Your task to perform on an android device: Show the shopping cart on target.com. Add "jbl charge 4" to the cart on target.com Image 0: 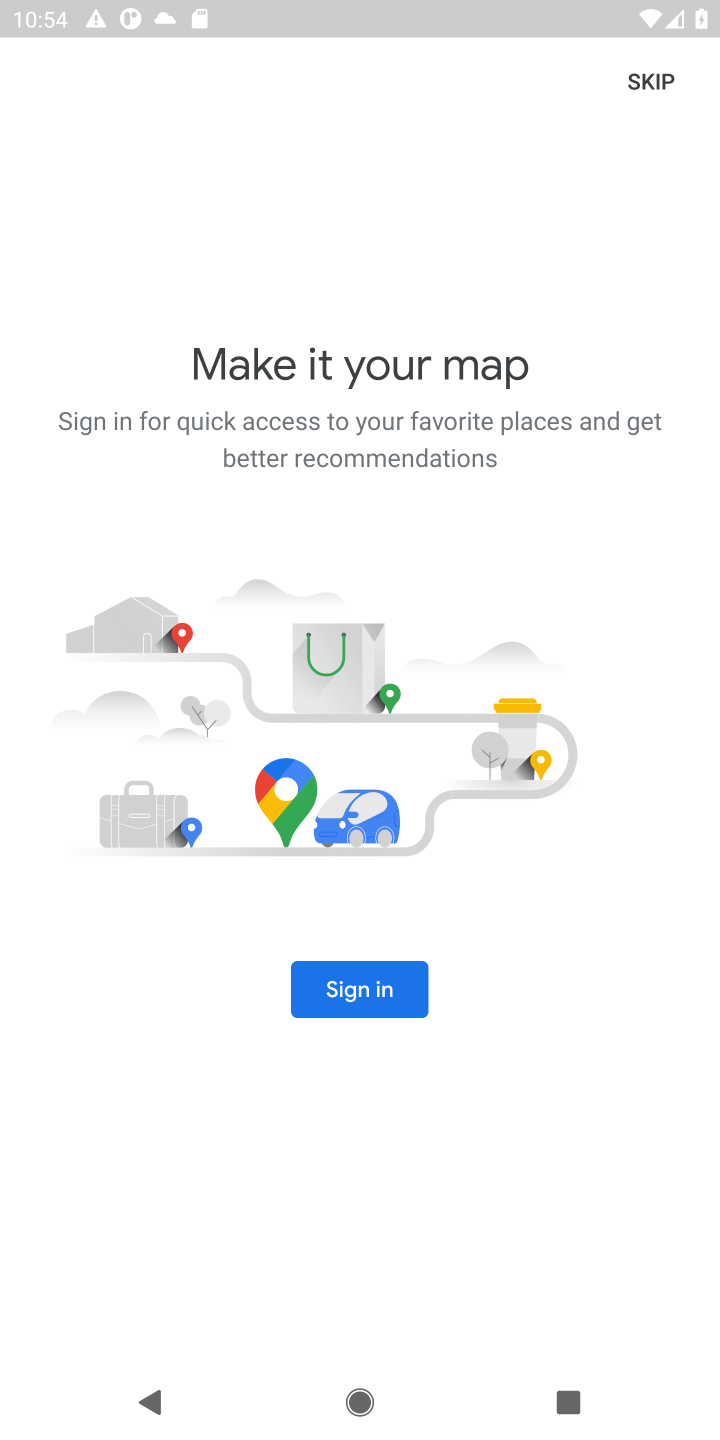
Step 0: press home button
Your task to perform on an android device: Show the shopping cart on target.com. Add "jbl charge 4" to the cart on target.com Image 1: 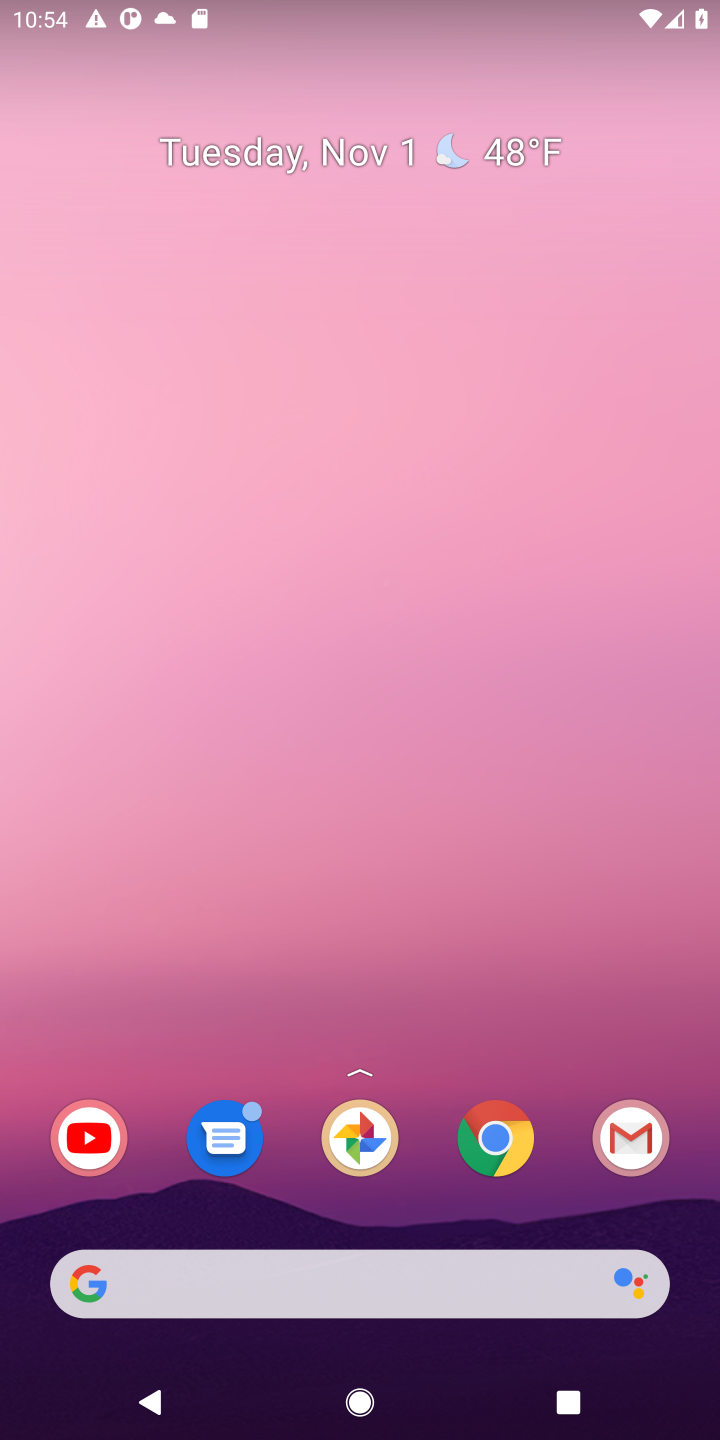
Step 1: drag from (437, 1078) to (430, 79)
Your task to perform on an android device: Show the shopping cart on target.com. Add "jbl charge 4" to the cart on target.com Image 2: 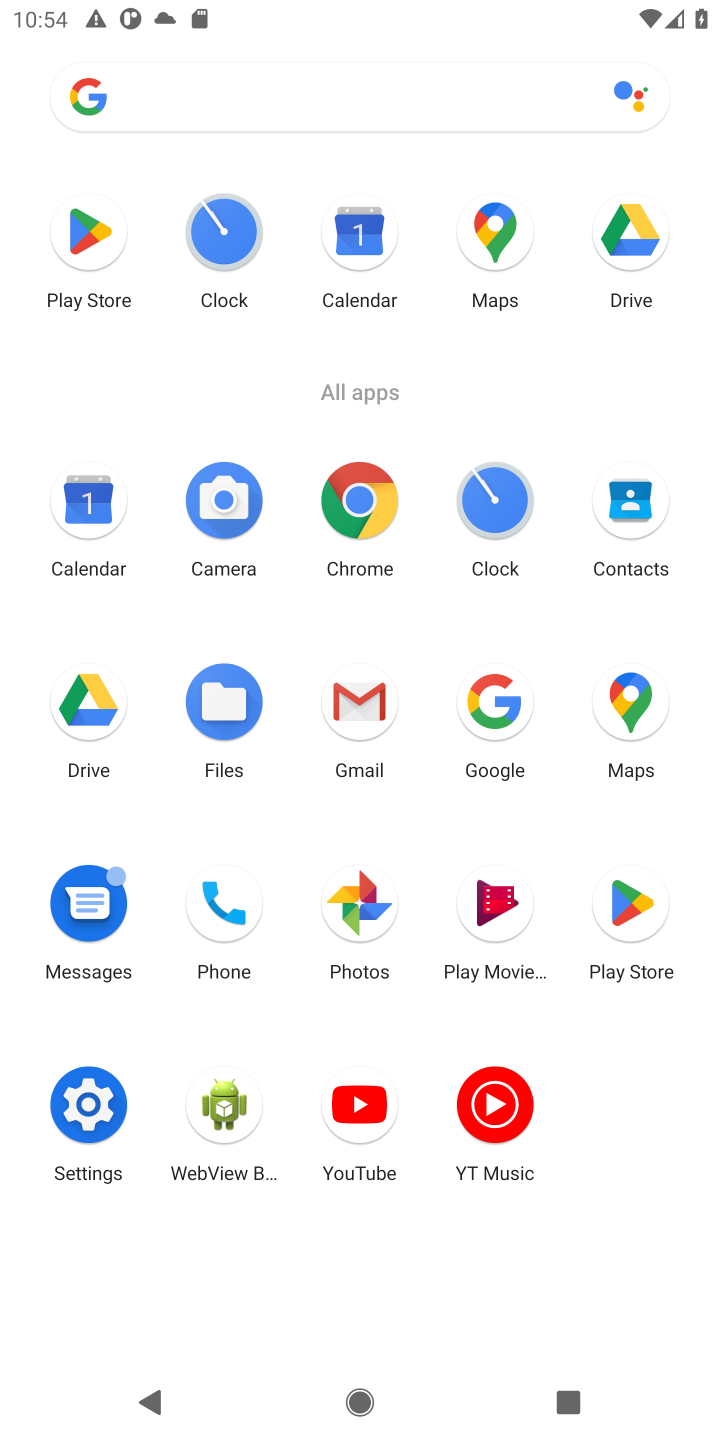
Step 2: click (359, 487)
Your task to perform on an android device: Show the shopping cart on target.com. Add "jbl charge 4" to the cart on target.com Image 3: 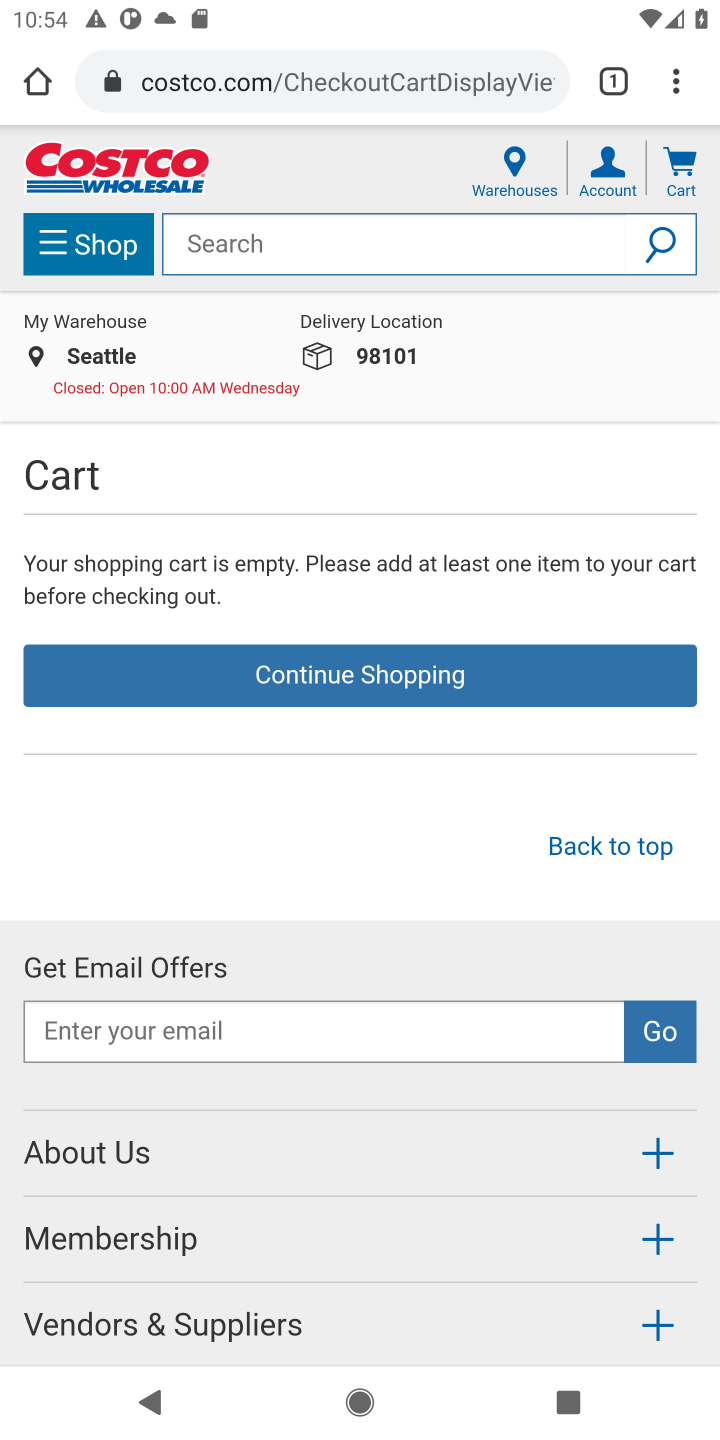
Step 3: click (193, 76)
Your task to perform on an android device: Show the shopping cart on target.com. Add "jbl charge 4" to the cart on target.com Image 4: 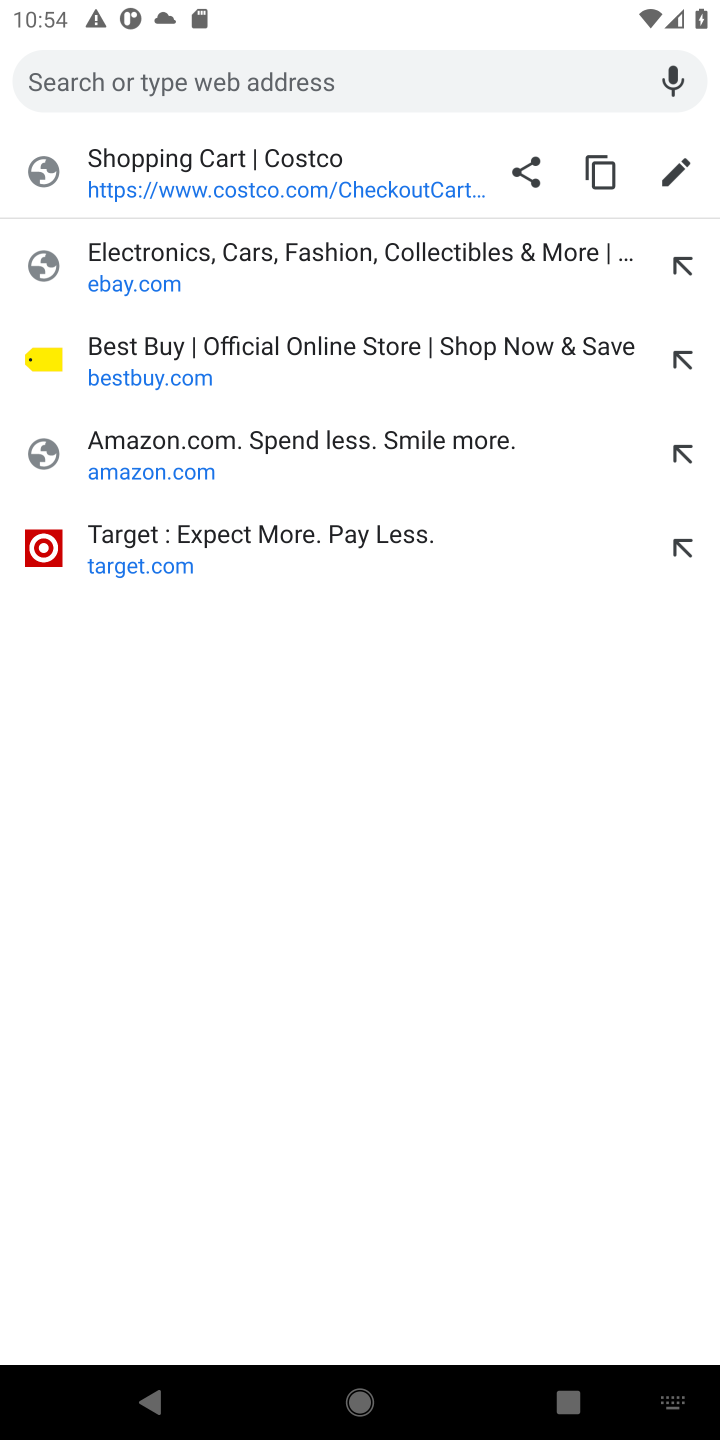
Step 4: type "target"
Your task to perform on an android device: Show the shopping cart on target.com. Add "jbl charge 4" to the cart on target.com Image 5: 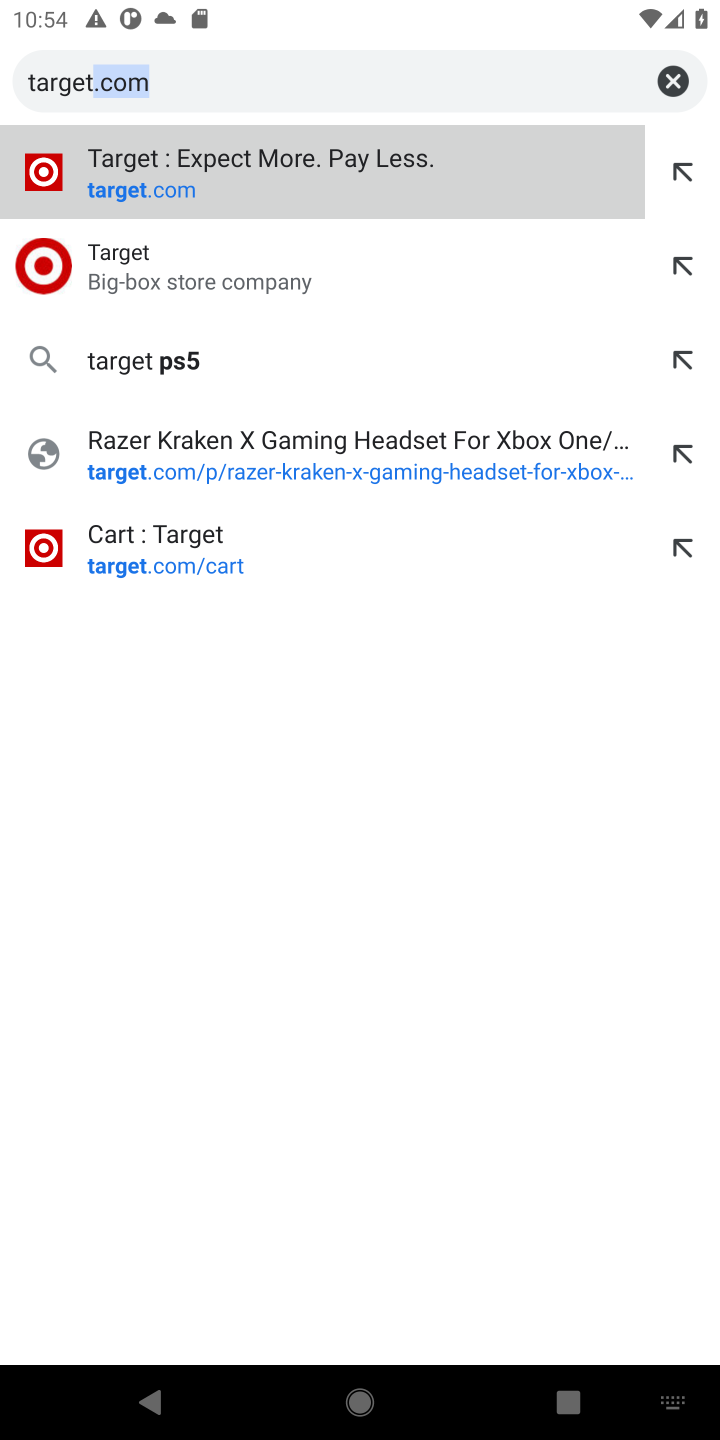
Step 5: click (206, 171)
Your task to perform on an android device: Show the shopping cart on target.com. Add "jbl charge 4" to the cart on target.com Image 6: 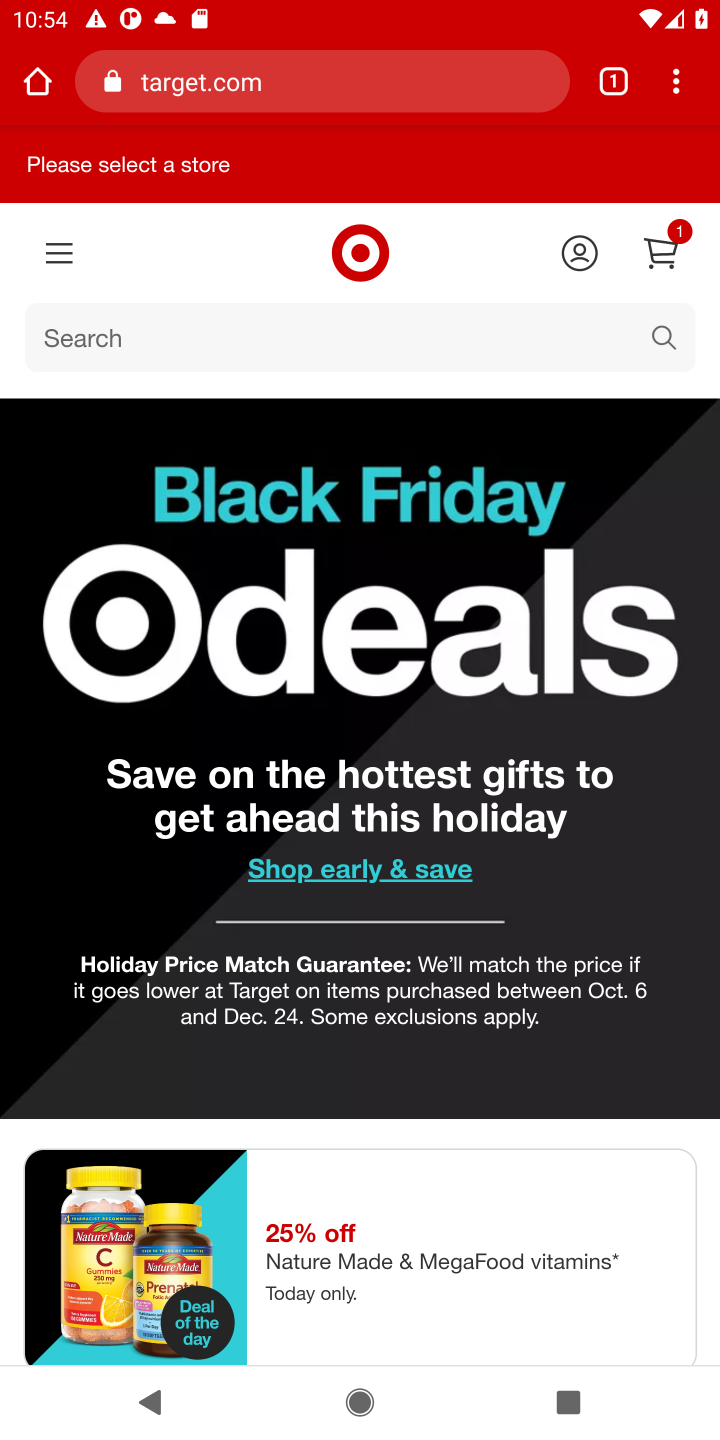
Step 6: click (157, 329)
Your task to perform on an android device: Show the shopping cart on target.com. Add "jbl charge 4" to the cart on target.com Image 7: 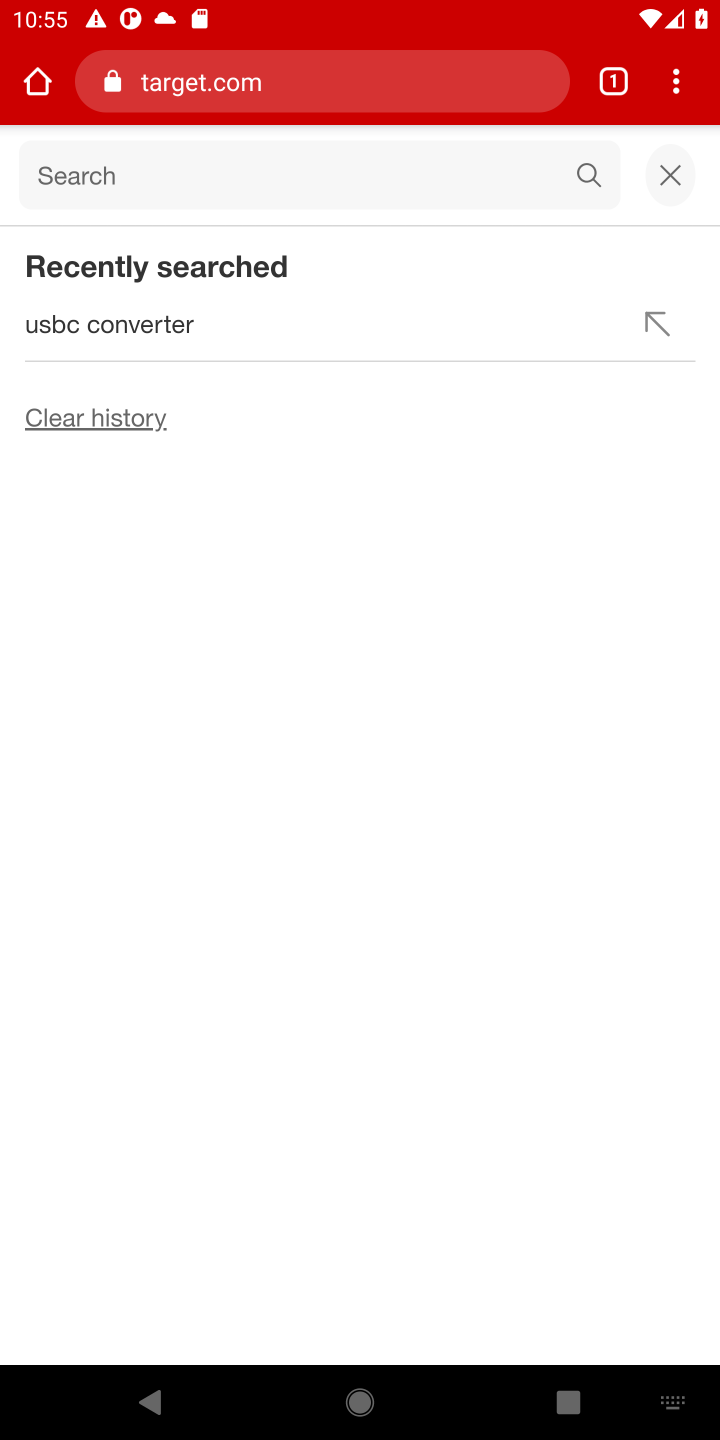
Step 7: type "jbl charge 4"
Your task to perform on an android device: Show the shopping cart on target.com. Add "jbl charge 4" to the cart on target.com Image 8: 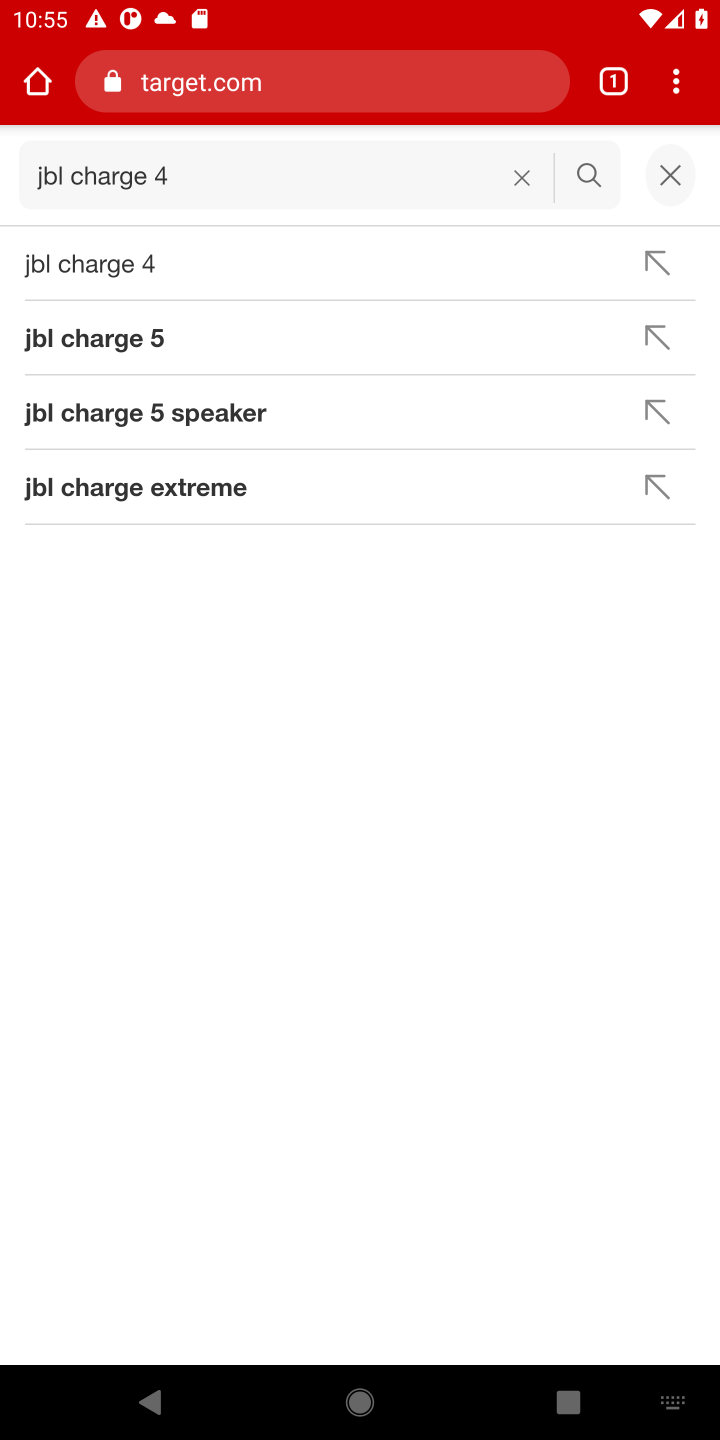
Step 8: click (159, 336)
Your task to perform on an android device: Show the shopping cart on target.com. Add "jbl charge 4" to the cart on target.com Image 9: 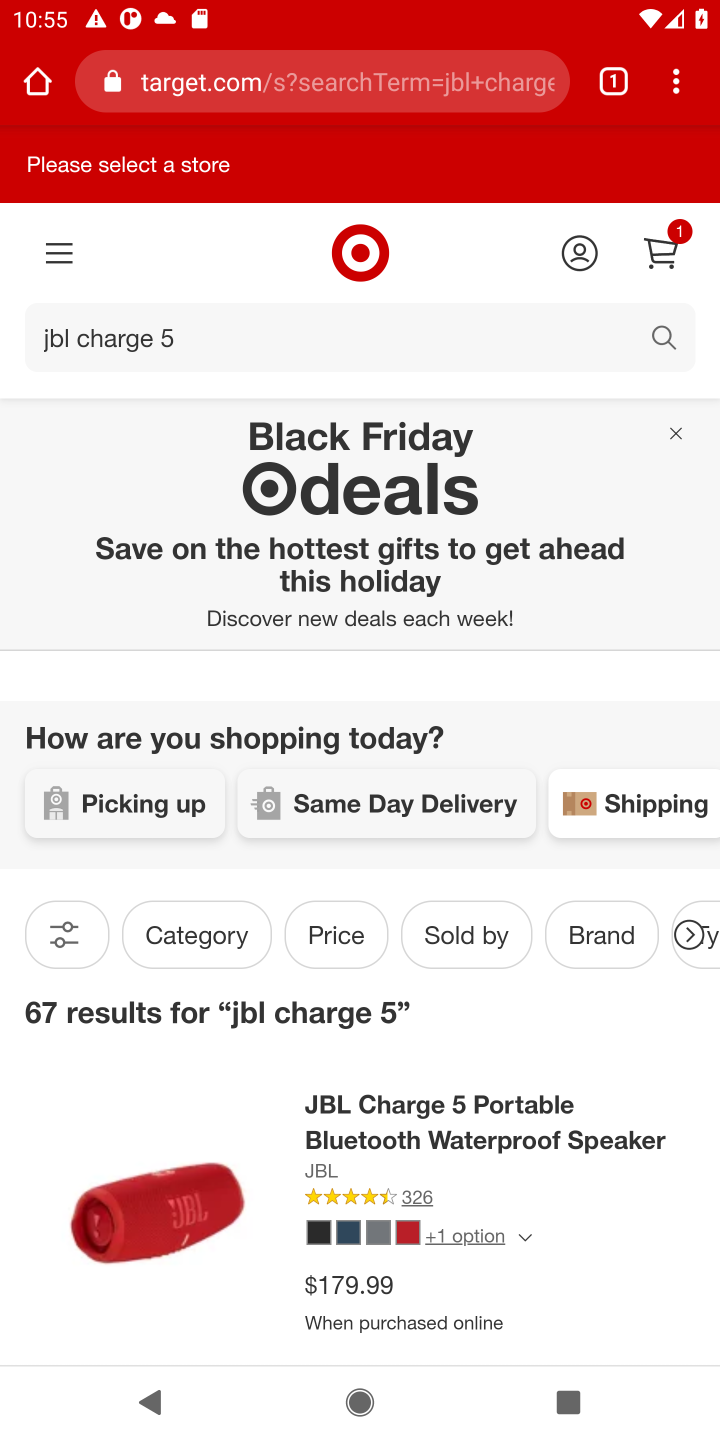
Step 9: click (654, 339)
Your task to perform on an android device: Show the shopping cart on target.com. Add "jbl charge 4" to the cart on target.com Image 10: 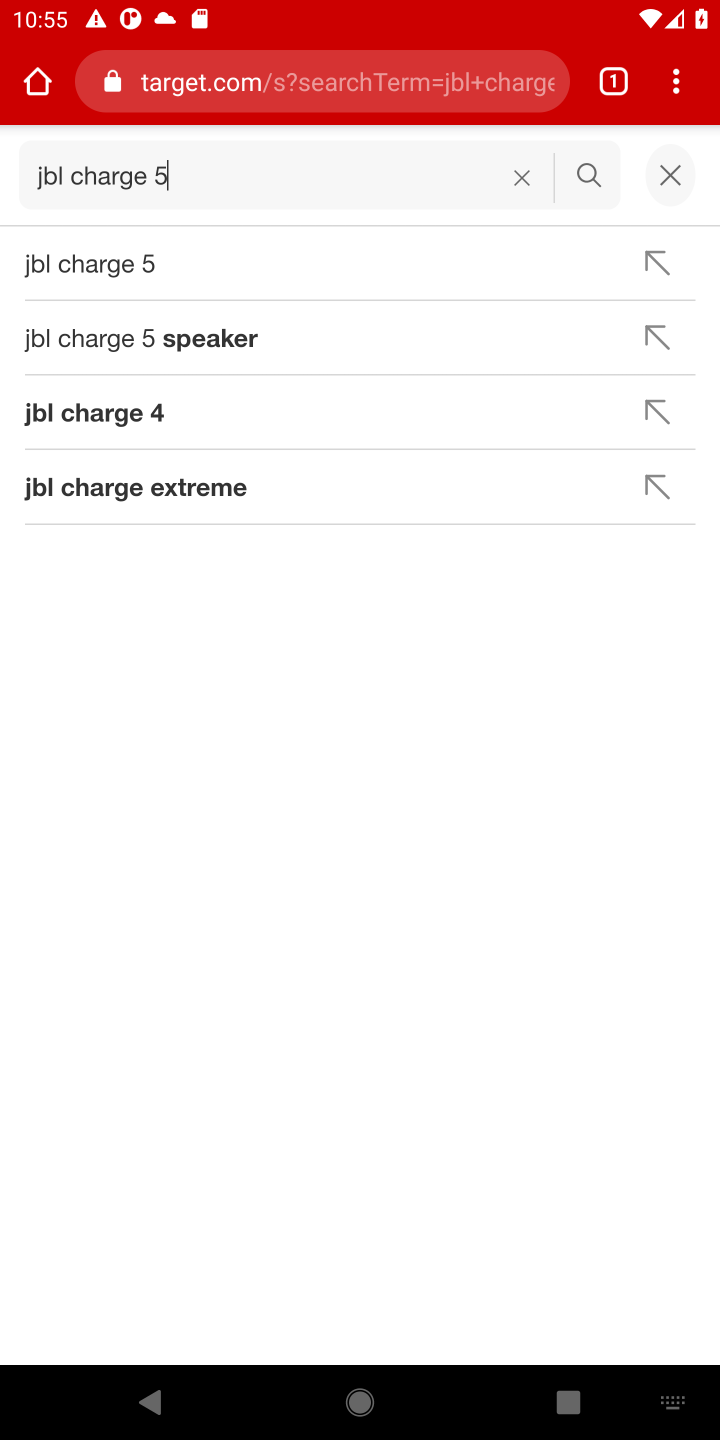
Step 10: click (523, 176)
Your task to perform on an android device: Show the shopping cart on target.com. Add "jbl charge 4" to the cart on target.com Image 11: 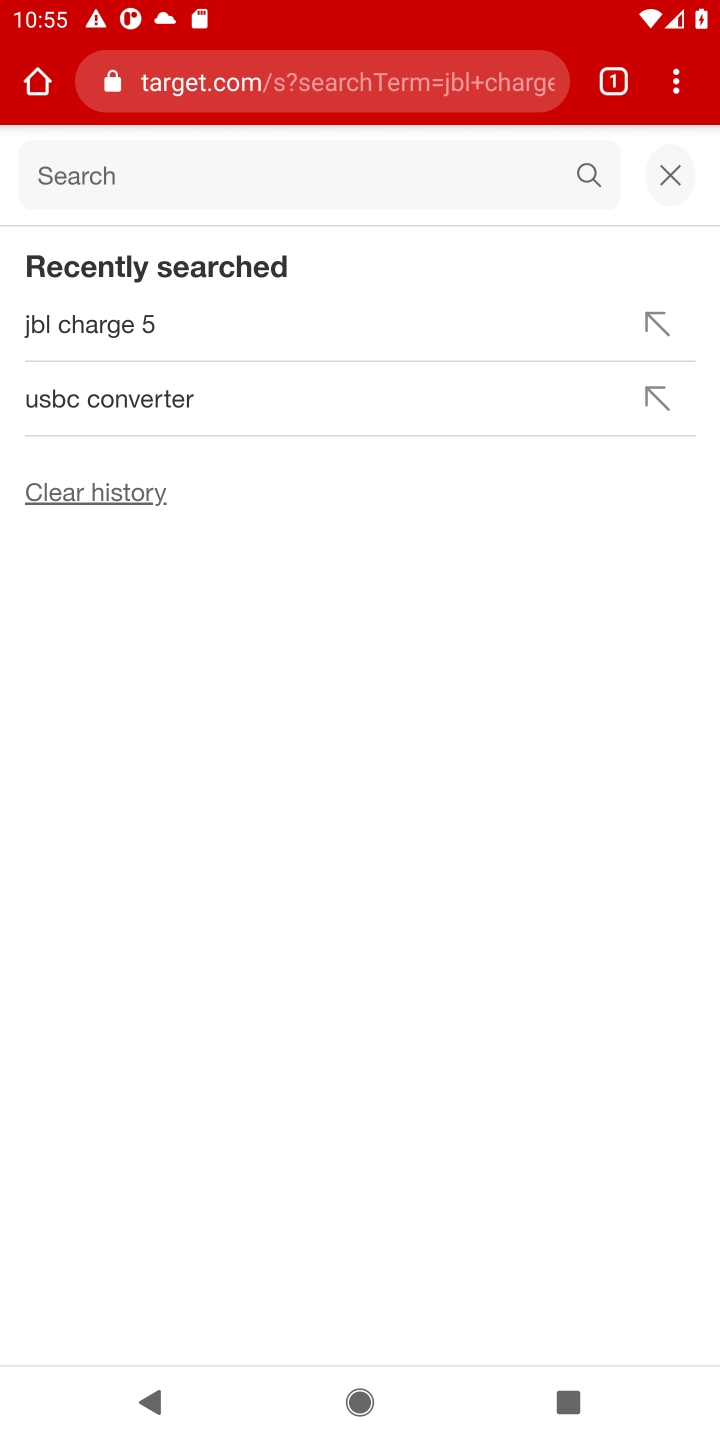
Step 11: type "jbl charge 4"
Your task to perform on an android device: Show the shopping cart on target.com. Add "jbl charge 4" to the cart on target.com Image 12: 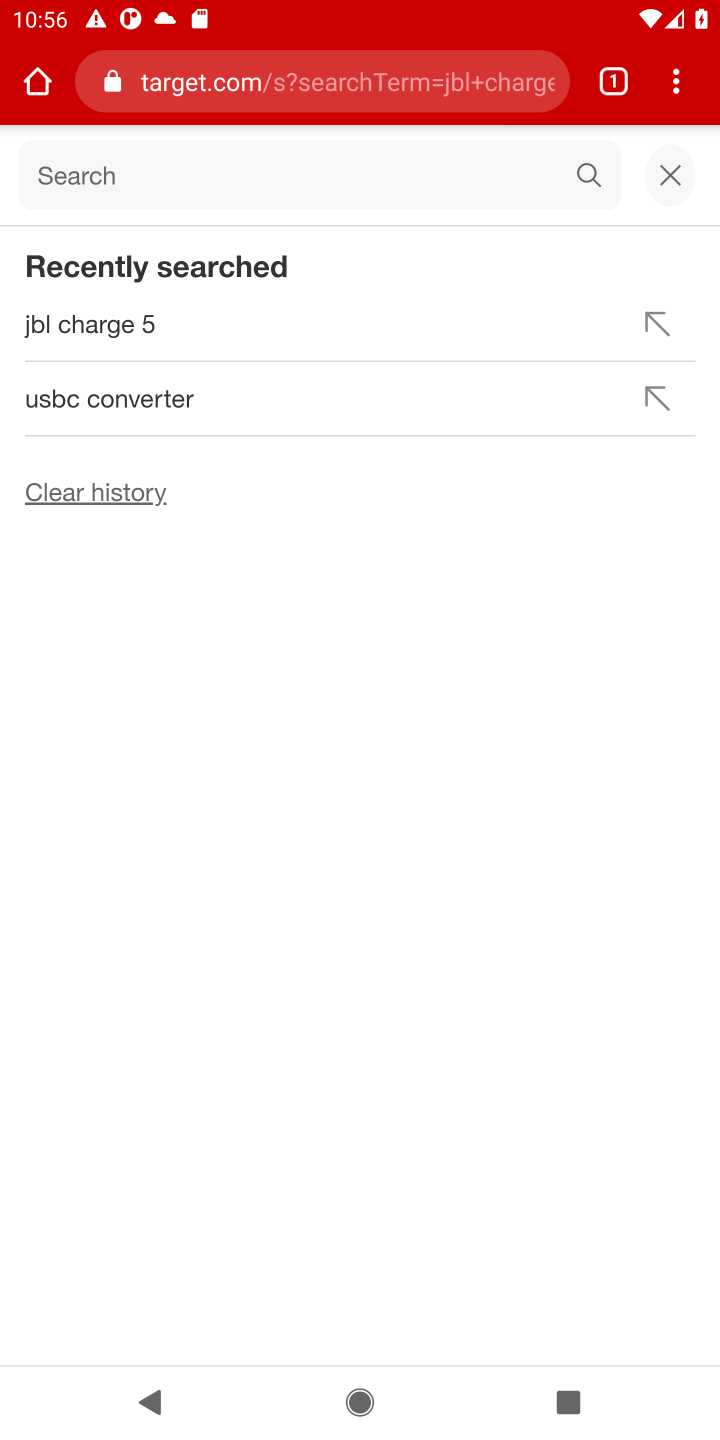
Step 12: click (95, 178)
Your task to perform on an android device: Show the shopping cart on target.com. Add "jbl charge 4" to the cart on target.com Image 13: 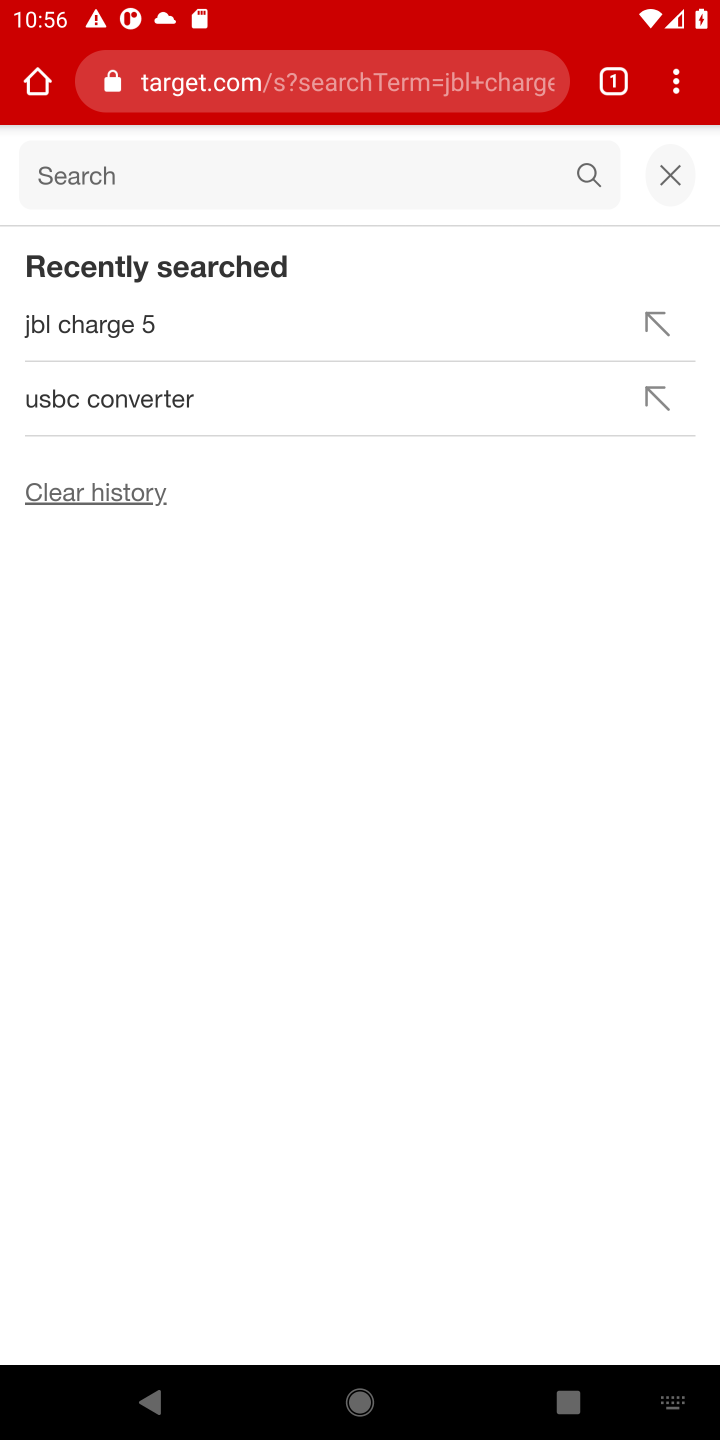
Step 13: type "jbl charge 4"
Your task to perform on an android device: Show the shopping cart on target.com. Add "jbl charge 4" to the cart on target.com Image 14: 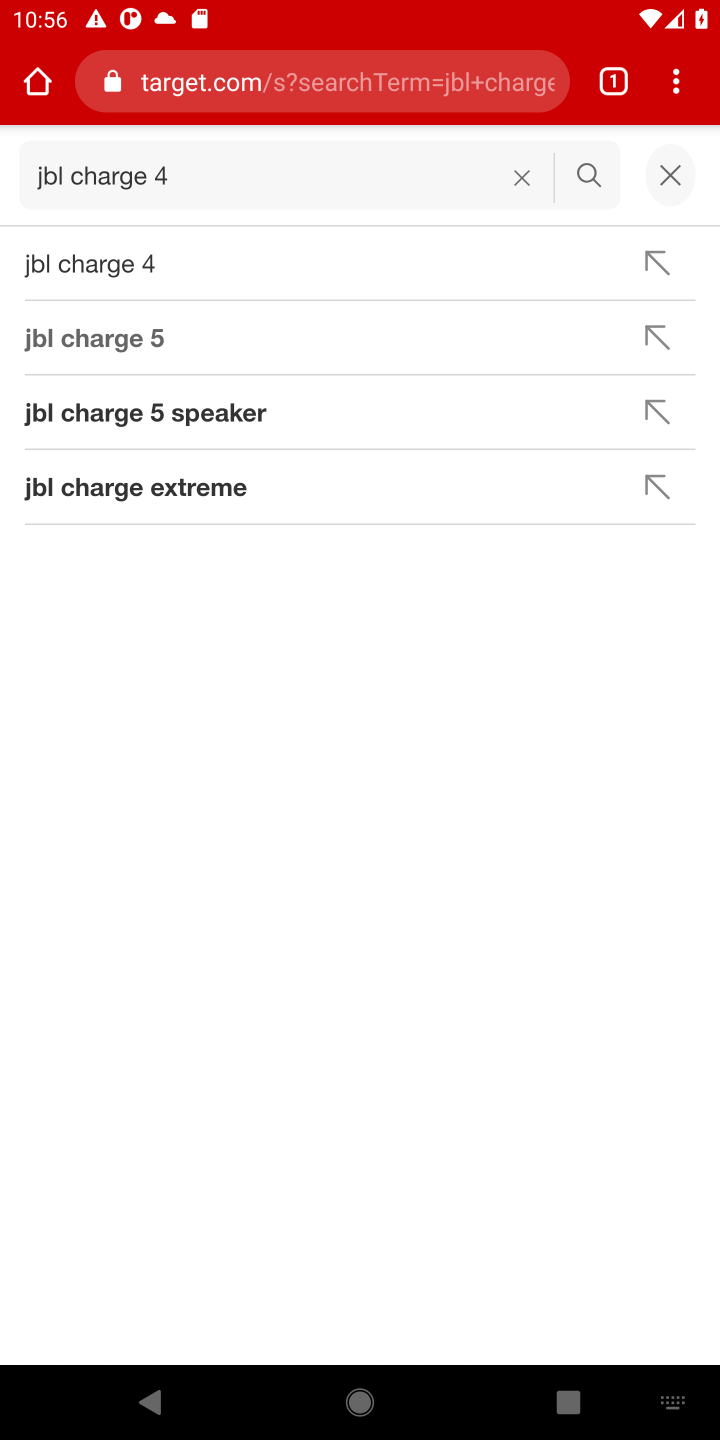
Step 14: click (125, 289)
Your task to perform on an android device: Show the shopping cart on target.com. Add "jbl charge 4" to the cart on target.com Image 15: 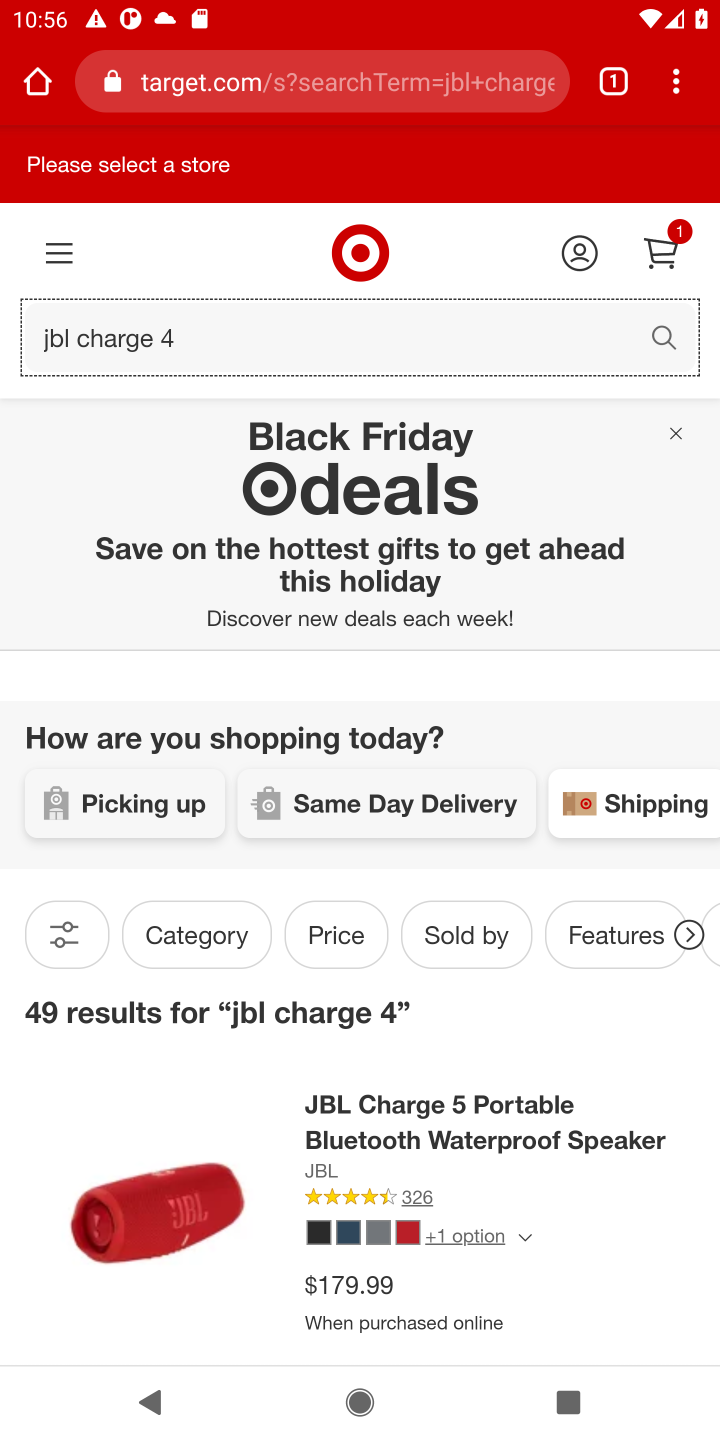
Step 15: drag from (361, 1224) to (339, 297)
Your task to perform on an android device: Show the shopping cart on target.com. Add "jbl charge 4" to the cart on target.com Image 16: 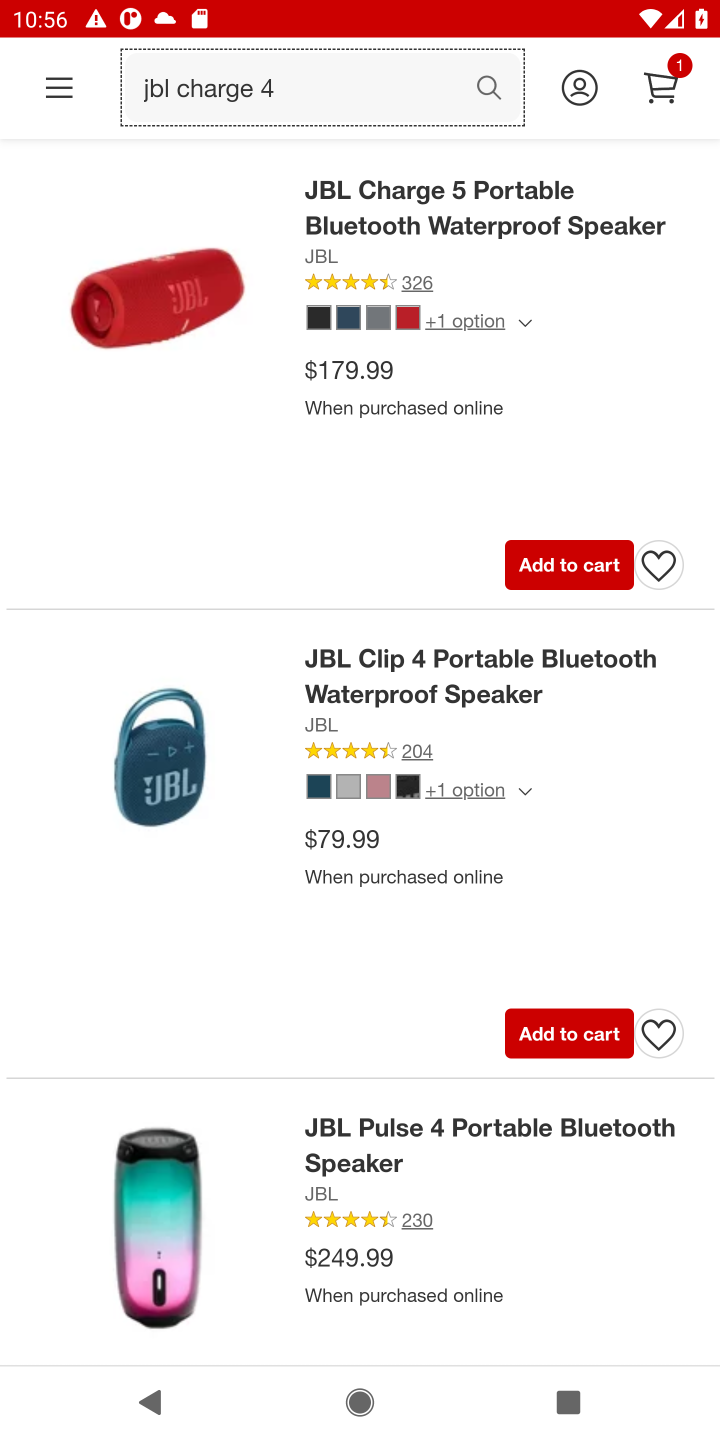
Step 16: click (320, 685)
Your task to perform on an android device: Show the shopping cart on target.com. Add "jbl charge 4" to the cart on target.com Image 17: 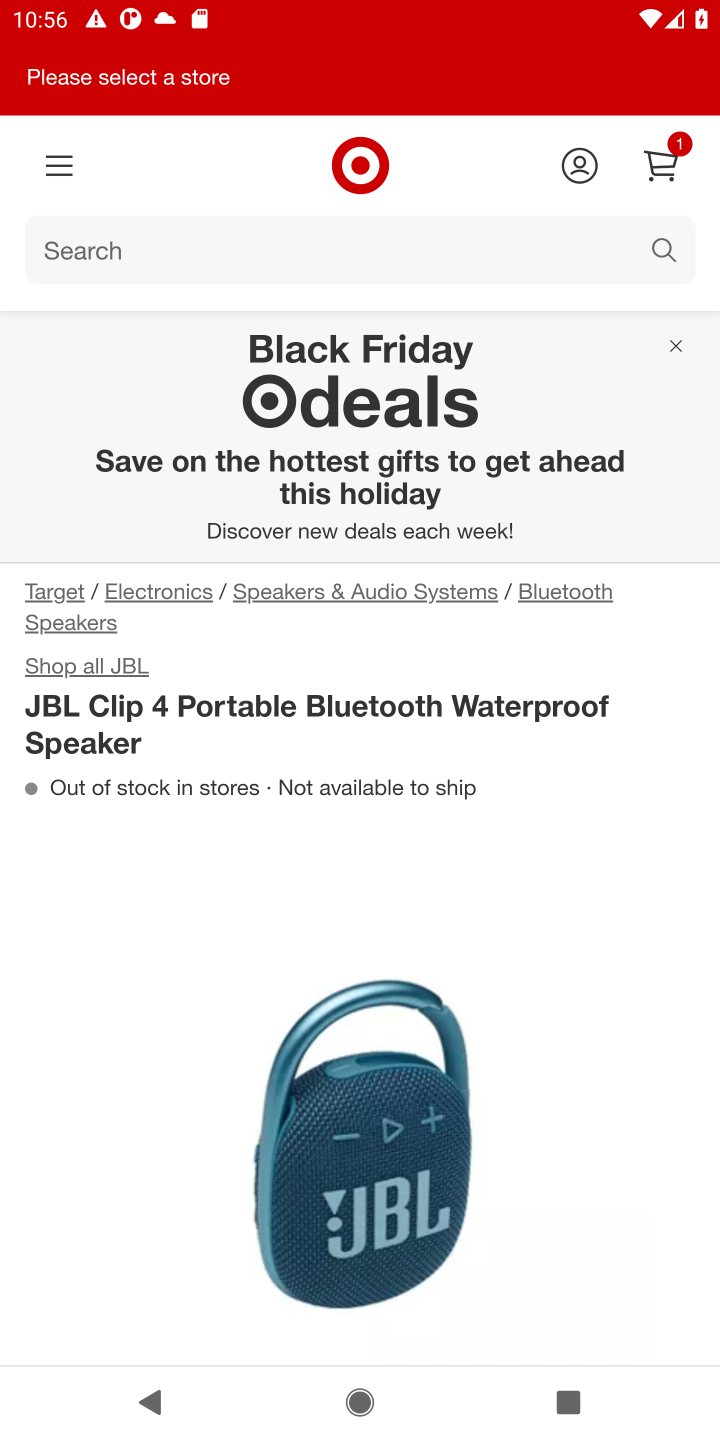
Step 17: drag from (157, 1186) to (169, 223)
Your task to perform on an android device: Show the shopping cart on target.com. Add "jbl charge 4" to the cart on target.com Image 18: 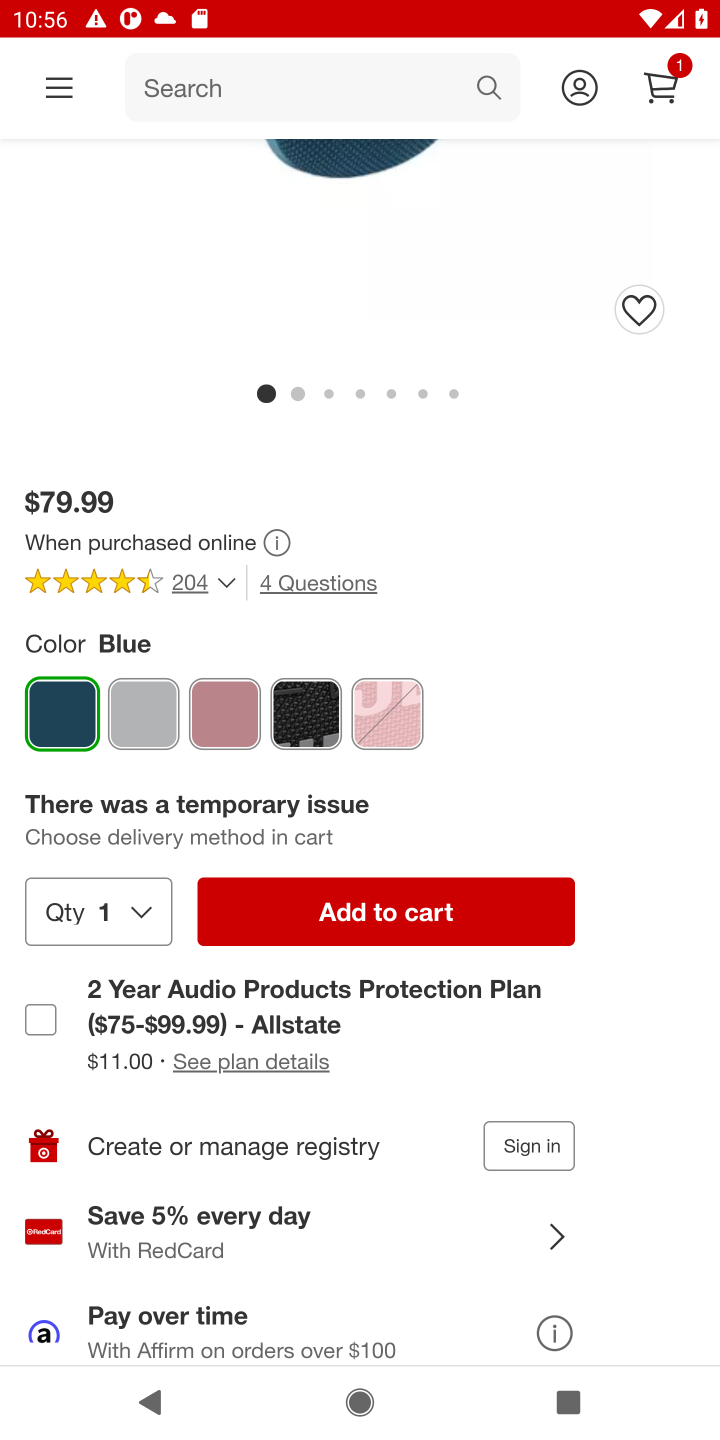
Step 18: click (385, 905)
Your task to perform on an android device: Show the shopping cart on target.com. Add "jbl charge 4" to the cart on target.com Image 19: 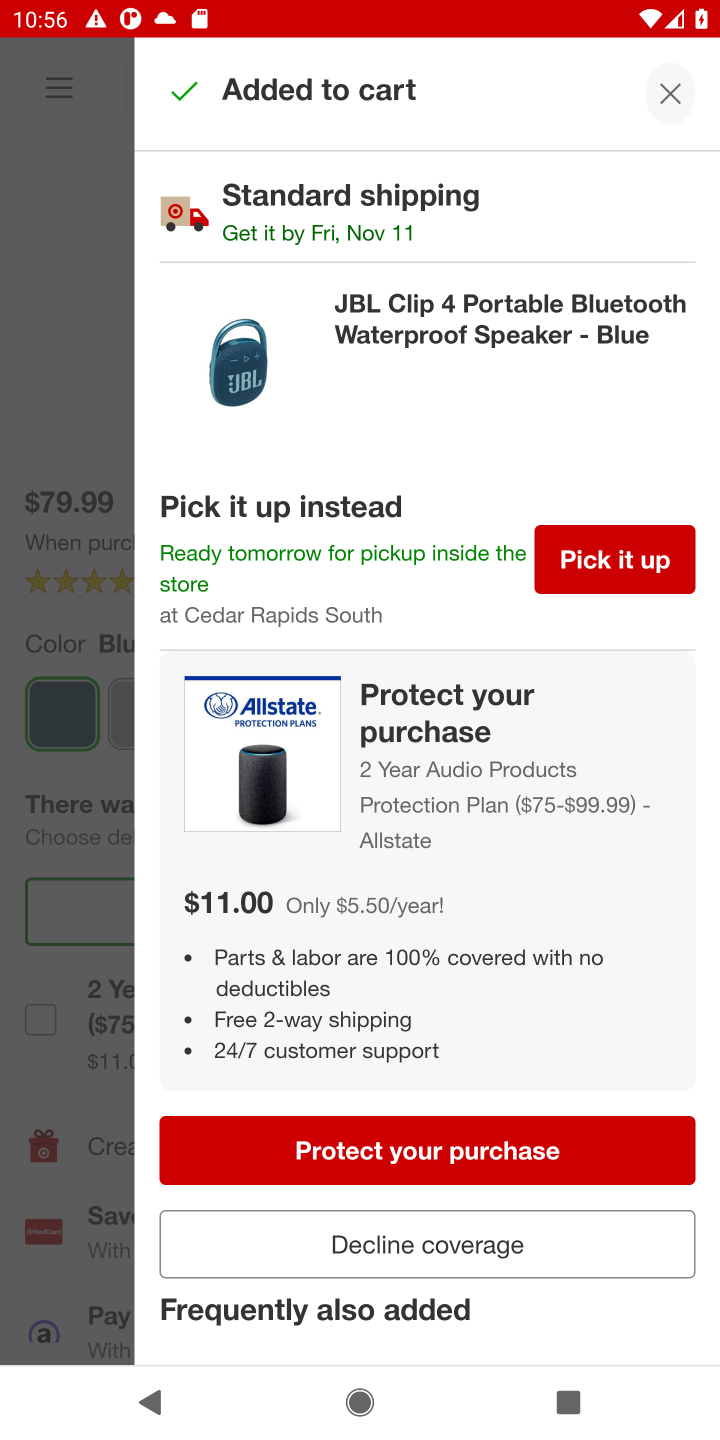
Step 19: click (674, 89)
Your task to perform on an android device: Show the shopping cart on target.com. Add "jbl charge 4" to the cart on target.com Image 20: 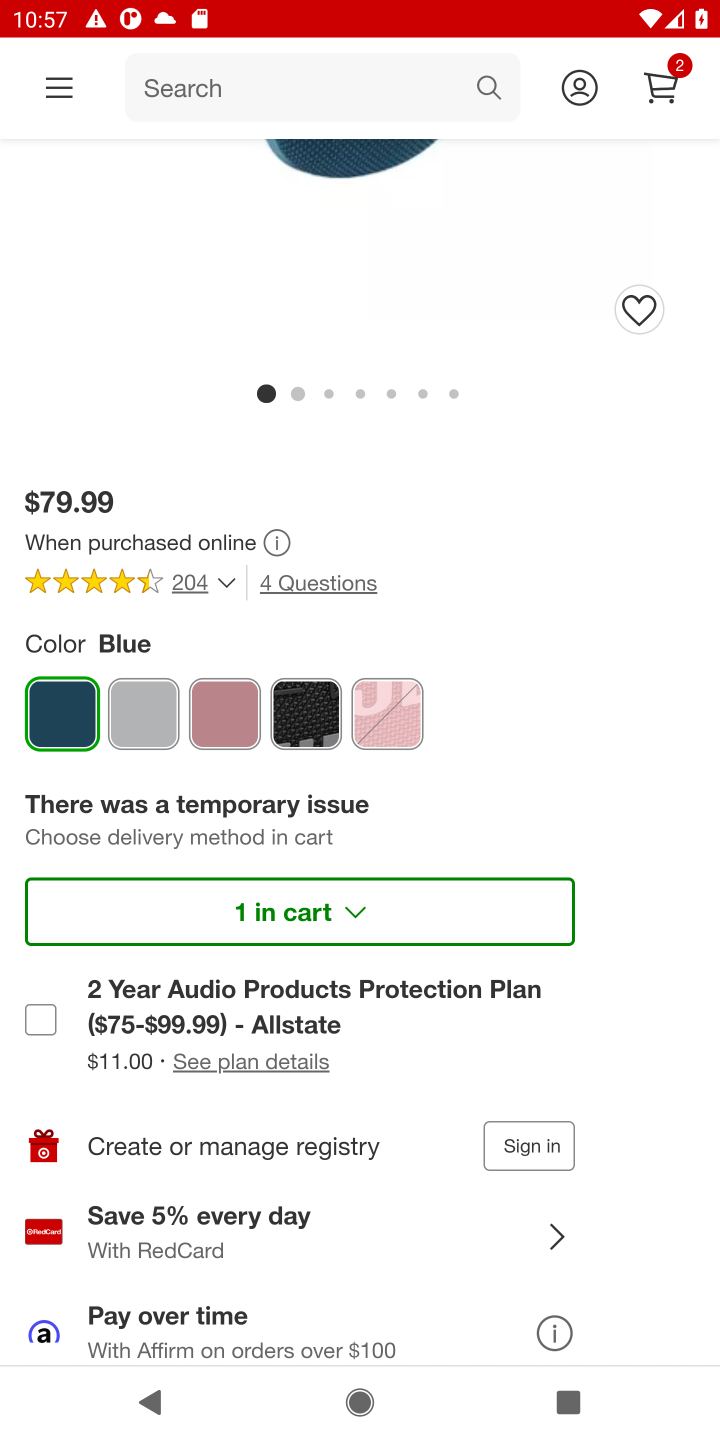
Step 20: drag from (555, 1061) to (574, 303)
Your task to perform on an android device: Show the shopping cart on target.com. Add "jbl charge 4" to the cart on target.com Image 21: 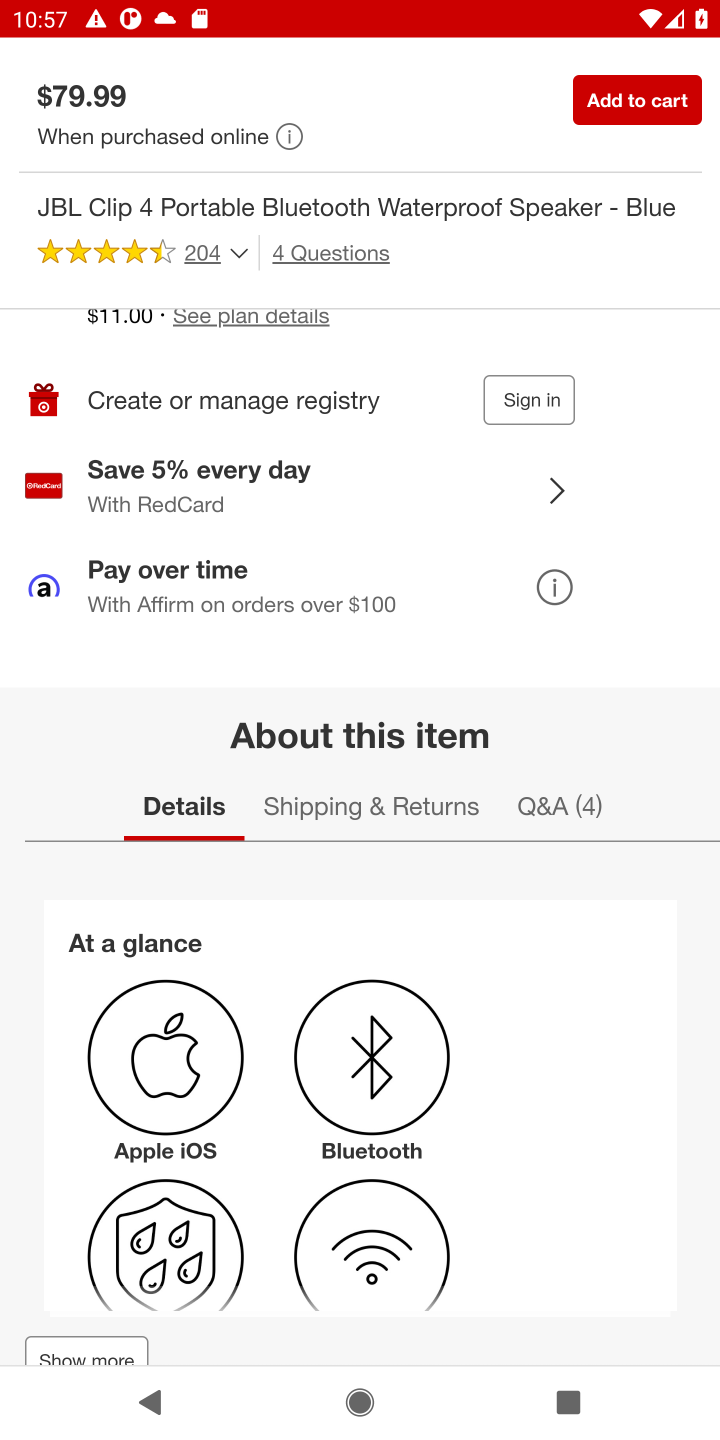
Step 21: drag from (422, 401) to (463, 1438)
Your task to perform on an android device: Show the shopping cart on target.com. Add "jbl charge 4" to the cart on target.com Image 22: 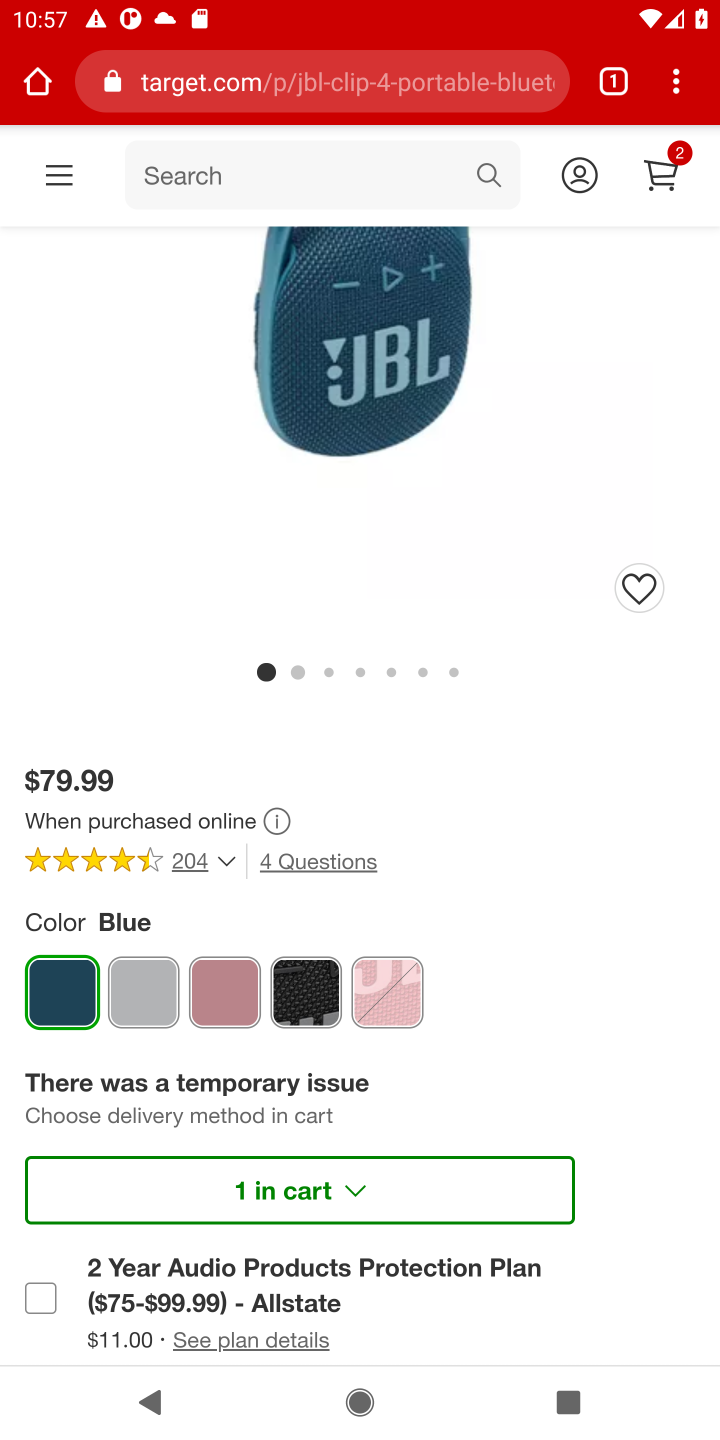
Step 22: click (673, 165)
Your task to perform on an android device: Show the shopping cart on target.com. Add "jbl charge 4" to the cart on target.com Image 23: 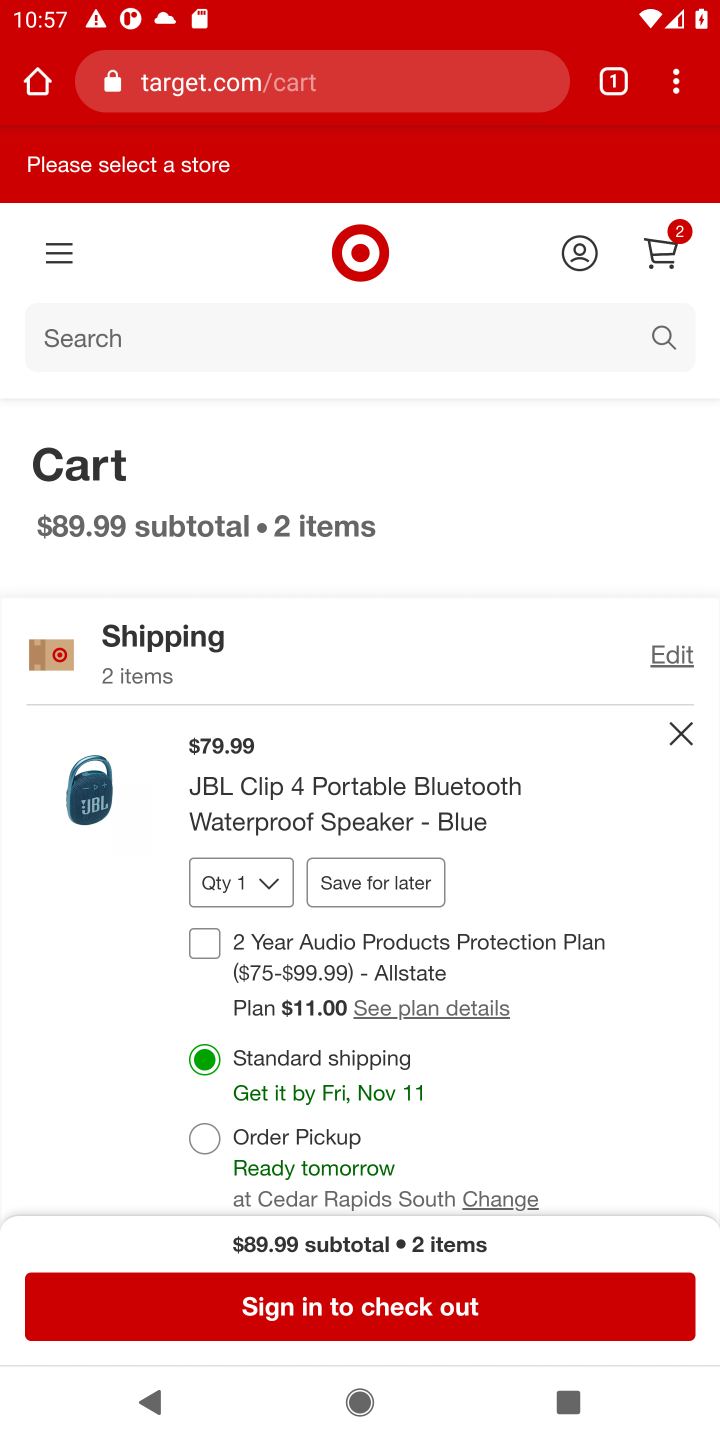
Step 23: task complete